Your task to perform on an android device: make emails show in primary in the gmail app Image 0: 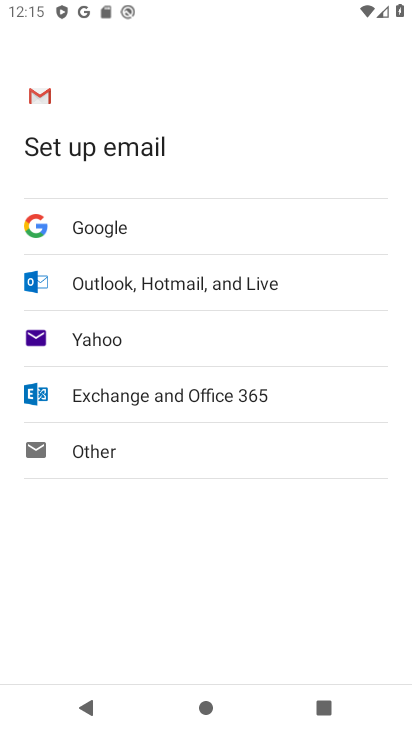
Step 0: press home button
Your task to perform on an android device: make emails show in primary in the gmail app Image 1: 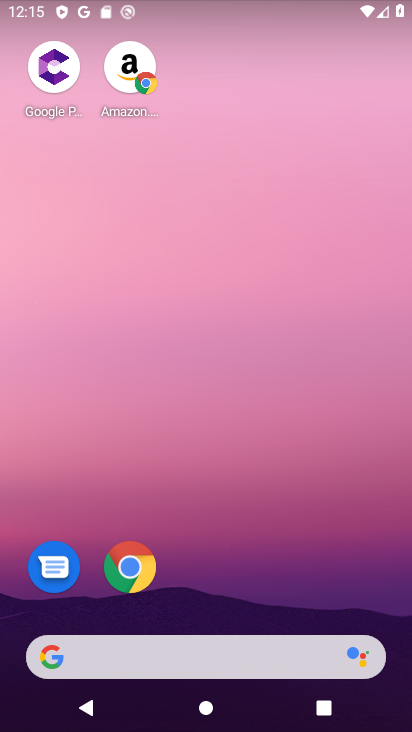
Step 1: drag from (276, 577) to (263, 104)
Your task to perform on an android device: make emails show in primary in the gmail app Image 2: 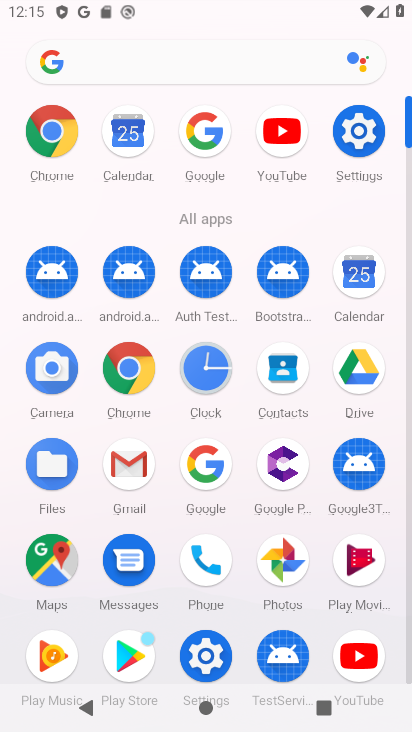
Step 2: click (128, 463)
Your task to perform on an android device: make emails show in primary in the gmail app Image 3: 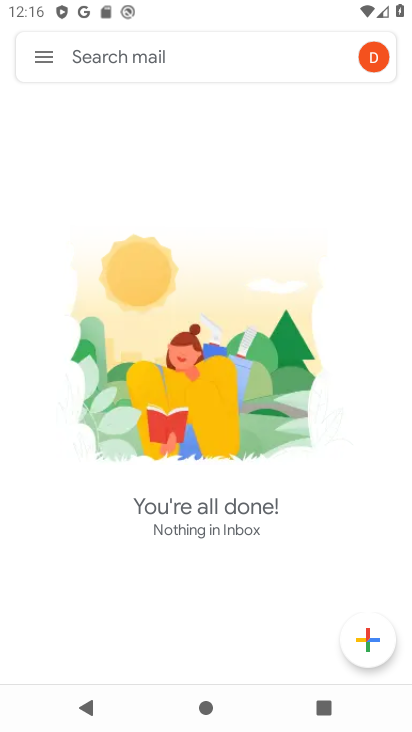
Step 3: click (41, 59)
Your task to perform on an android device: make emails show in primary in the gmail app Image 4: 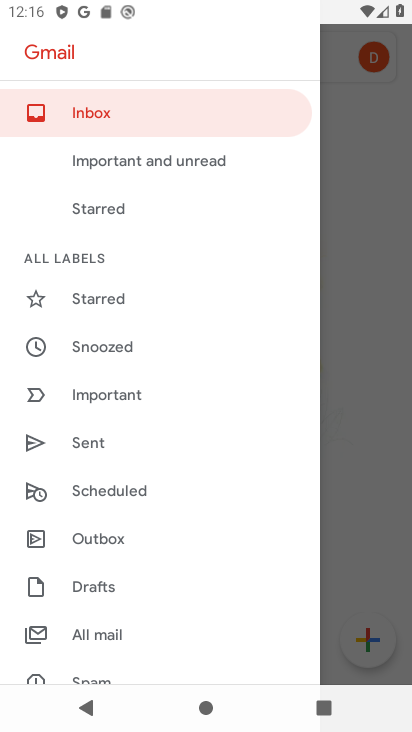
Step 4: drag from (108, 463) to (142, 373)
Your task to perform on an android device: make emails show in primary in the gmail app Image 5: 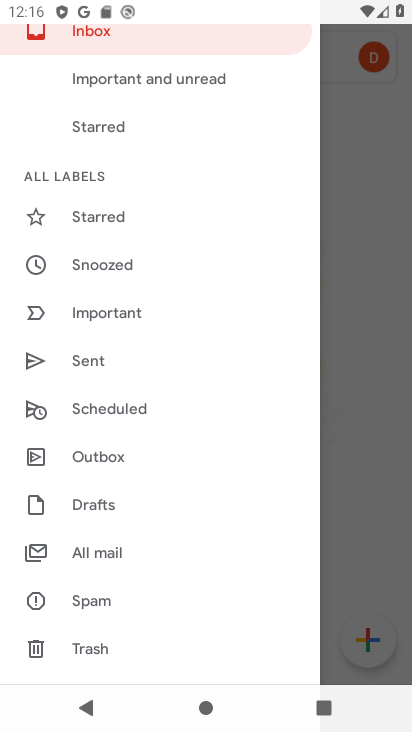
Step 5: drag from (97, 477) to (151, 385)
Your task to perform on an android device: make emails show in primary in the gmail app Image 6: 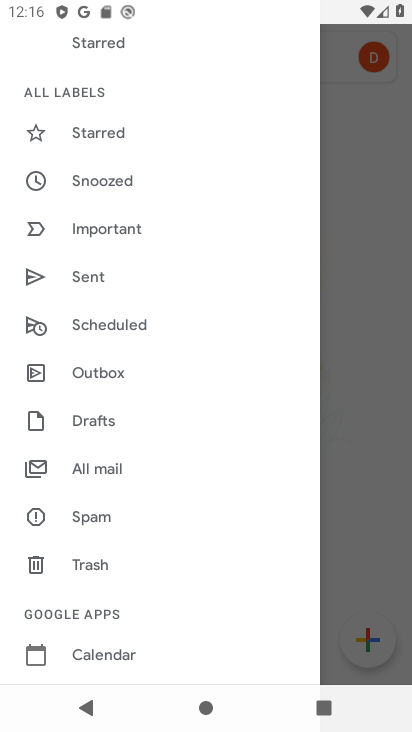
Step 6: drag from (94, 496) to (126, 406)
Your task to perform on an android device: make emails show in primary in the gmail app Image 7: 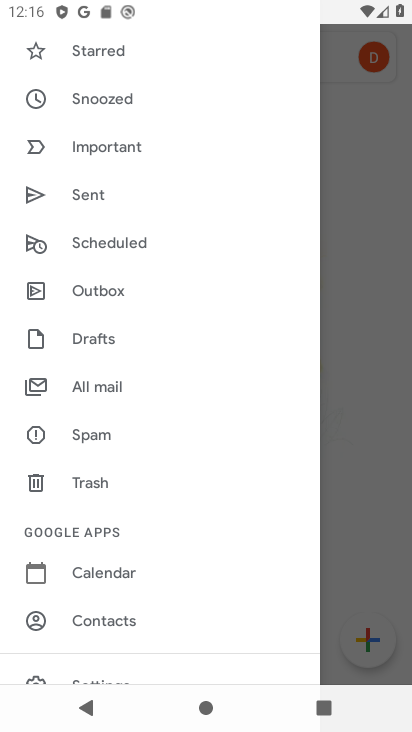
Step 7: drag from (85, 457) to (160, 371)
Your task to perform on an android device: make emails show in primary in the gmail app Image 8: 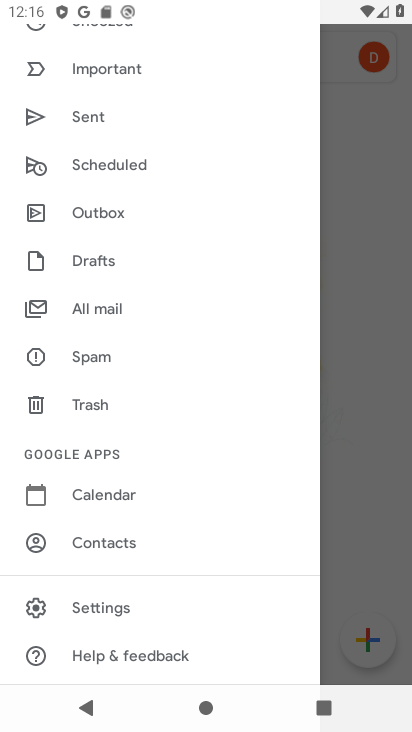
Step 8: drag from (94, 515) to (148, 432)
Your task to perform on an android device: make emails show in primary in the gmail app Image 9: 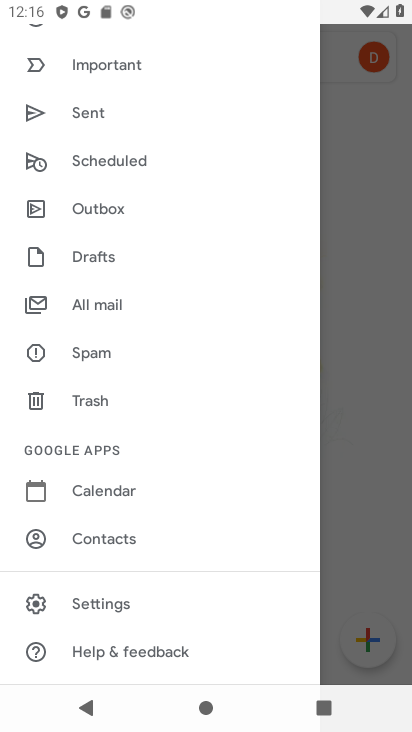
Step 9: click (114, 611)
Your task to perform on an android device: make emails show in primary in the gmail app Image 10: 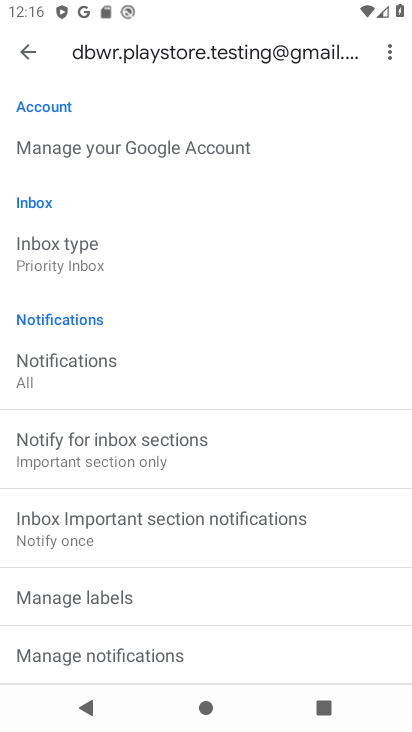
Step 10: drag from (72, 393) to (145, 311)
Your task to perform on an android device: make emails show in primary in the gmail app Image 11: 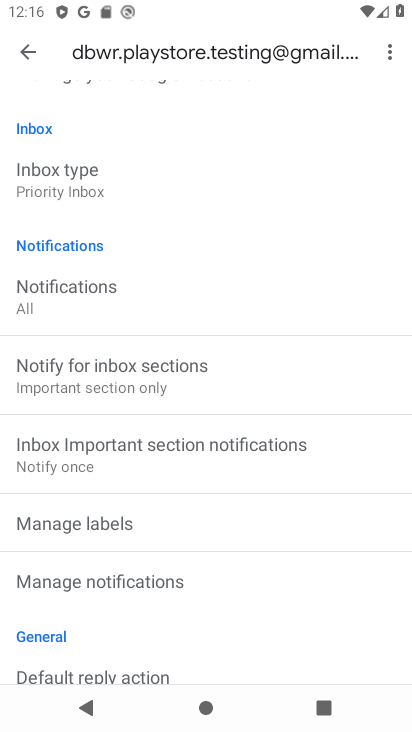
Step 11: drag from (111, 471) to (163, 384)
Your task to perform on an android device: make emails show in primary in the gmail app Image 12: 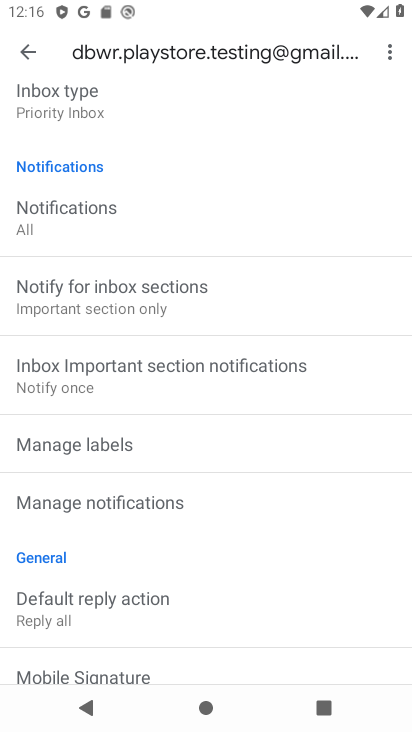
Step 12: drag from (82, 463) to (146, 382)
Your task to perform on an android device: make emails show in primary in the gmail app Image 13: 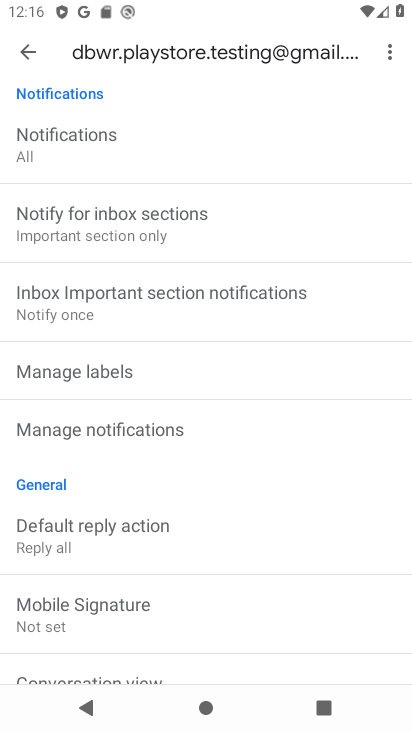
Step 13: drag from (82, 462) to (133, 373)
Your task to perform on an android device: make emails show in primary in the gmail app Image 14: 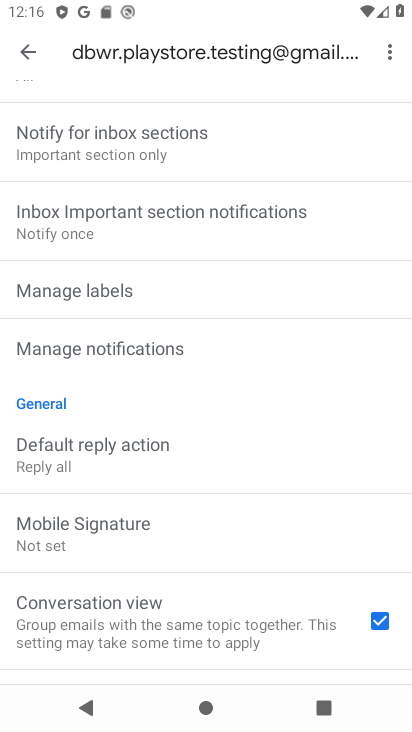
Step 14: drag from (92, 416) to (131, 351)
Your task to perform on an android device: make emails show in primary in the gmail app Image 15: 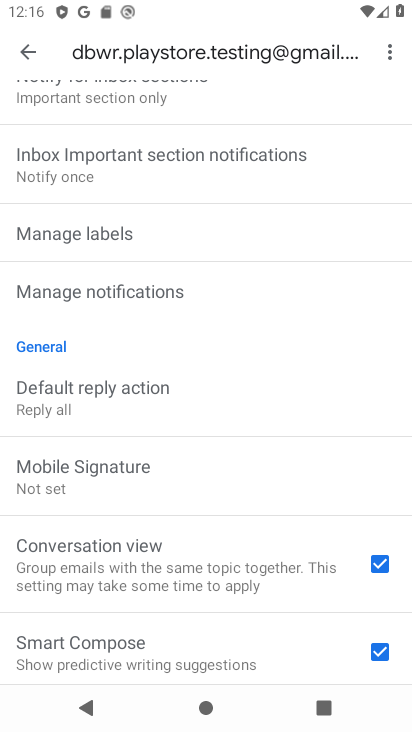
Step 15: drag from (96, 429) to (142, 355)
Your task to perform on an android device: make emails show in primary in the gmail app Image 16: 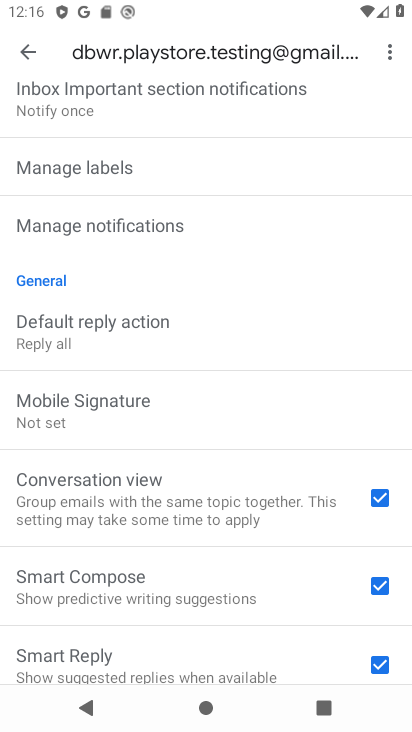
Step 16: drag from (86, 433) to (122, 369)
Your task to perform on an android device: make emails show in primary in the gmail app Image 17: 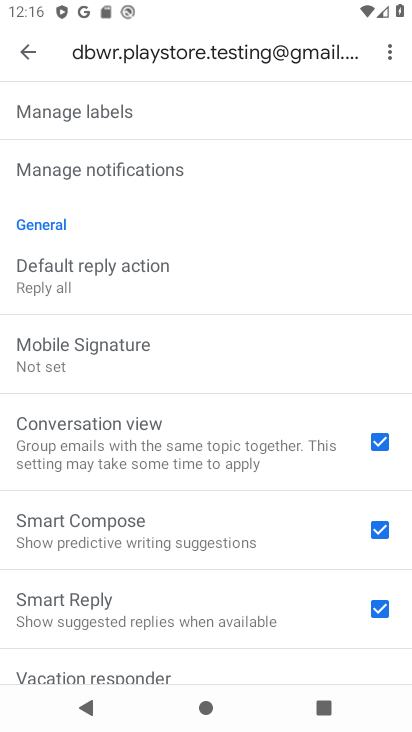
Step 17: drag from (100, 499) to (171, 413)
Your task to perform on an android device: make emails show in primary in the gmail app Image 18: 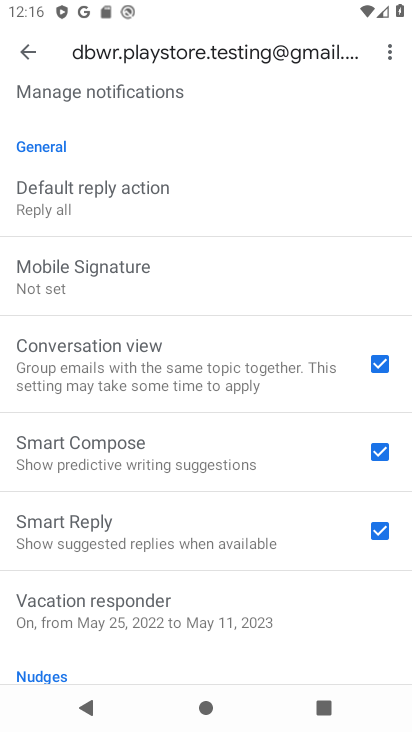
Step 18: drag from (177, 231) to (188, 482)
Your task to perform on an android device: make emails show in primary in the gmail app Image 19: 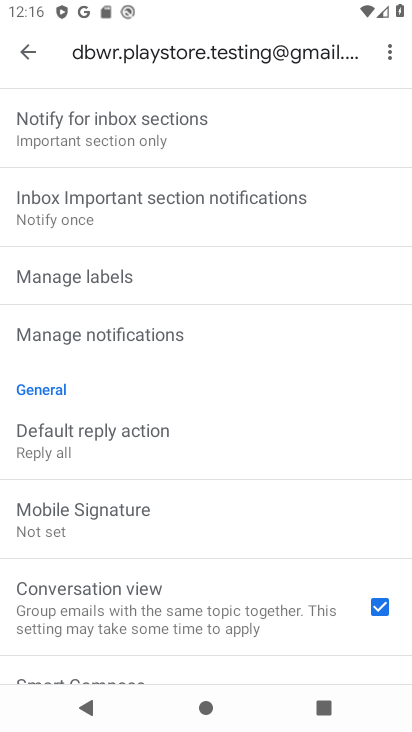
Step 19: drag from (242, 137) to (224, 274)
Your task to perform on an android device: make emails show in primary in the gmail app Image 20: 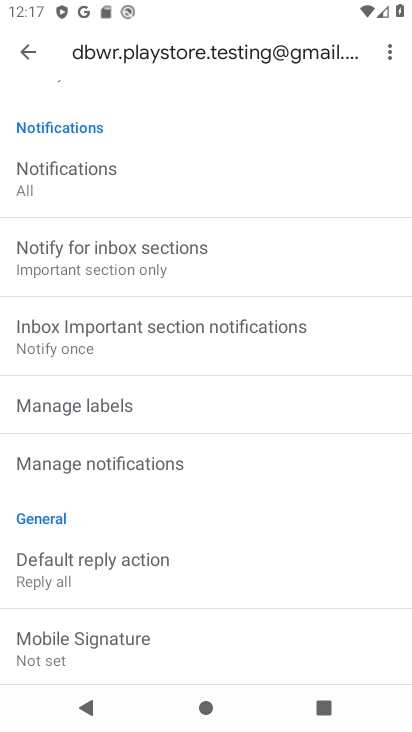
Step 20: drag from (199, 150) to (180, 312)
Your task to perform on an android device: make emails show in primary in the gmail app Image 21: 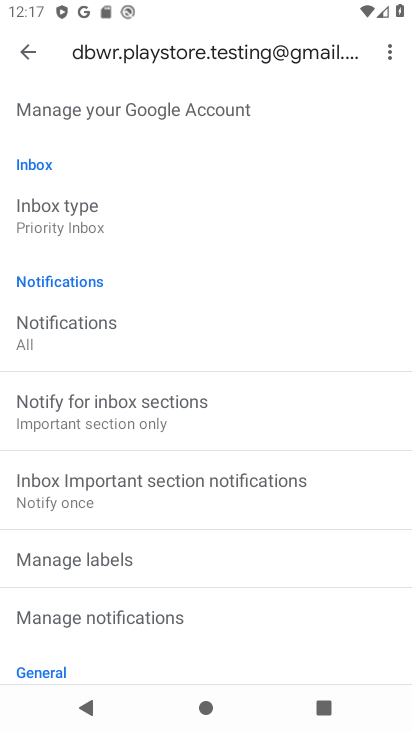
Step 21: click (89, 218)
Your task to perform on an android device: make emails show in primary in the gmail app Image 22: 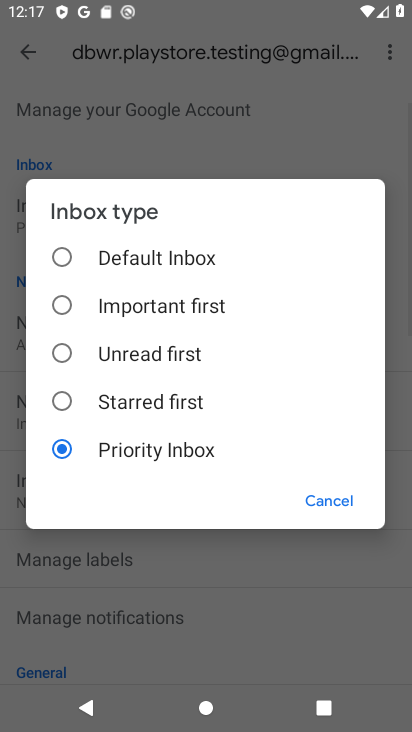
Step 22: click (66, 256)
Your task to perform on an android device: make emails show in primary in the gmail app Image 23: 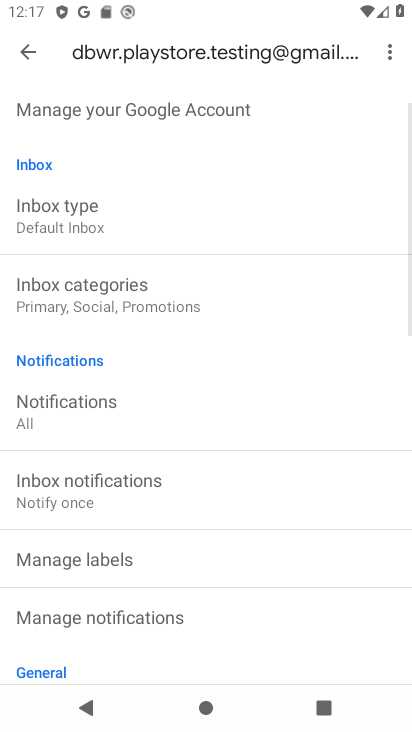
Step 23: click (76, 287)
Your task to perform on an android device: make emails show in primary in the gmail app Image 24: 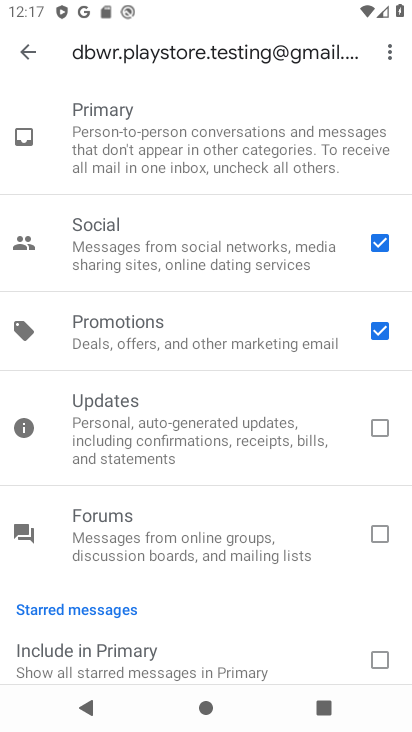
Step 24: click (375, 244)
Your task to perform on an android device: make emails show in primary in the gmail app Image 25: 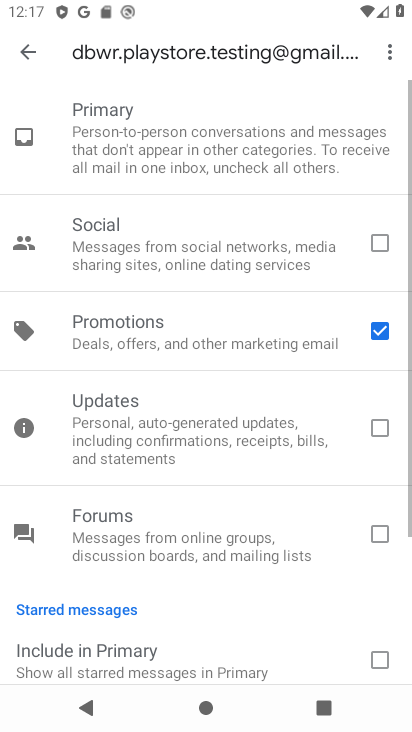
Step 25: click (370, 322)
Your task to perform on an android device: make emails show in primary in the gmail app Image 26: 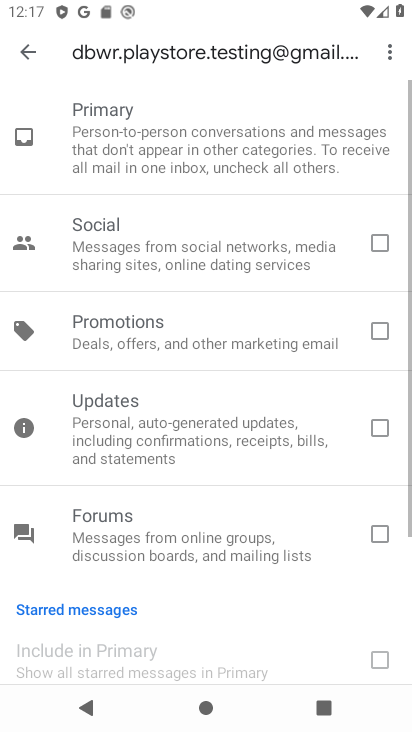
Step 26: drag from (166, 499) to (219, 217)
Your task to perform on an android device: make emails show in primary in the gmail app Image 27: 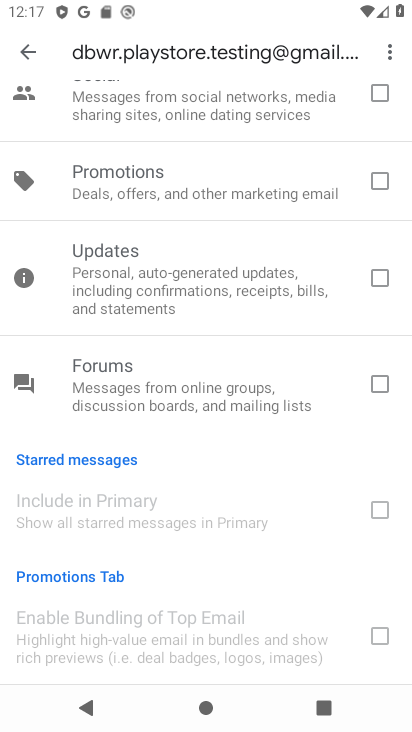
Step 27: click (22, 42)
Your task to perform on an android device: make emails show in primary in the gmail app Image 28: 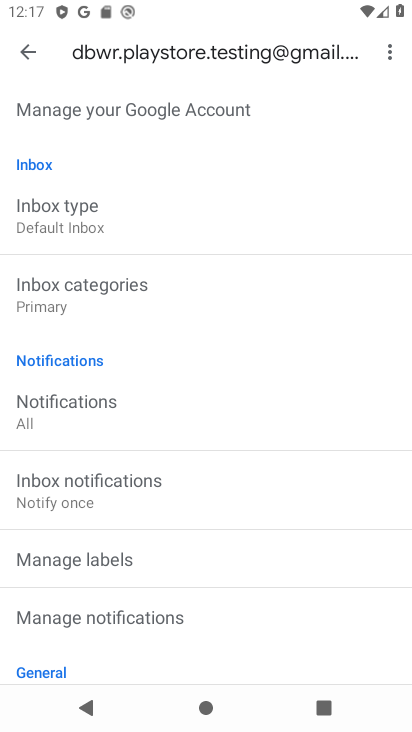
Step 28: task complete